Your task to perform on an android device: Go to notification settings Image 0: 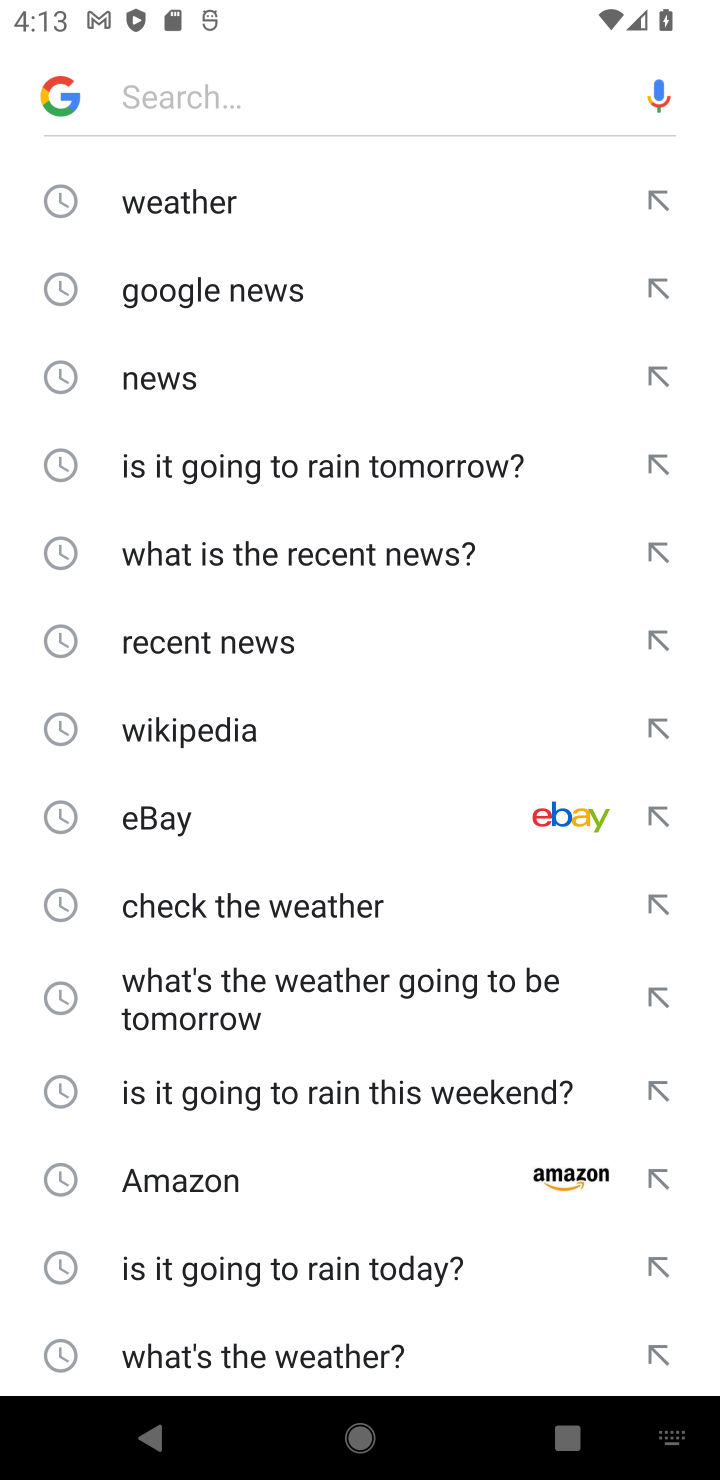
Step 0: press home button
Your task to perform on an android device: Go to notification settings Image 1: 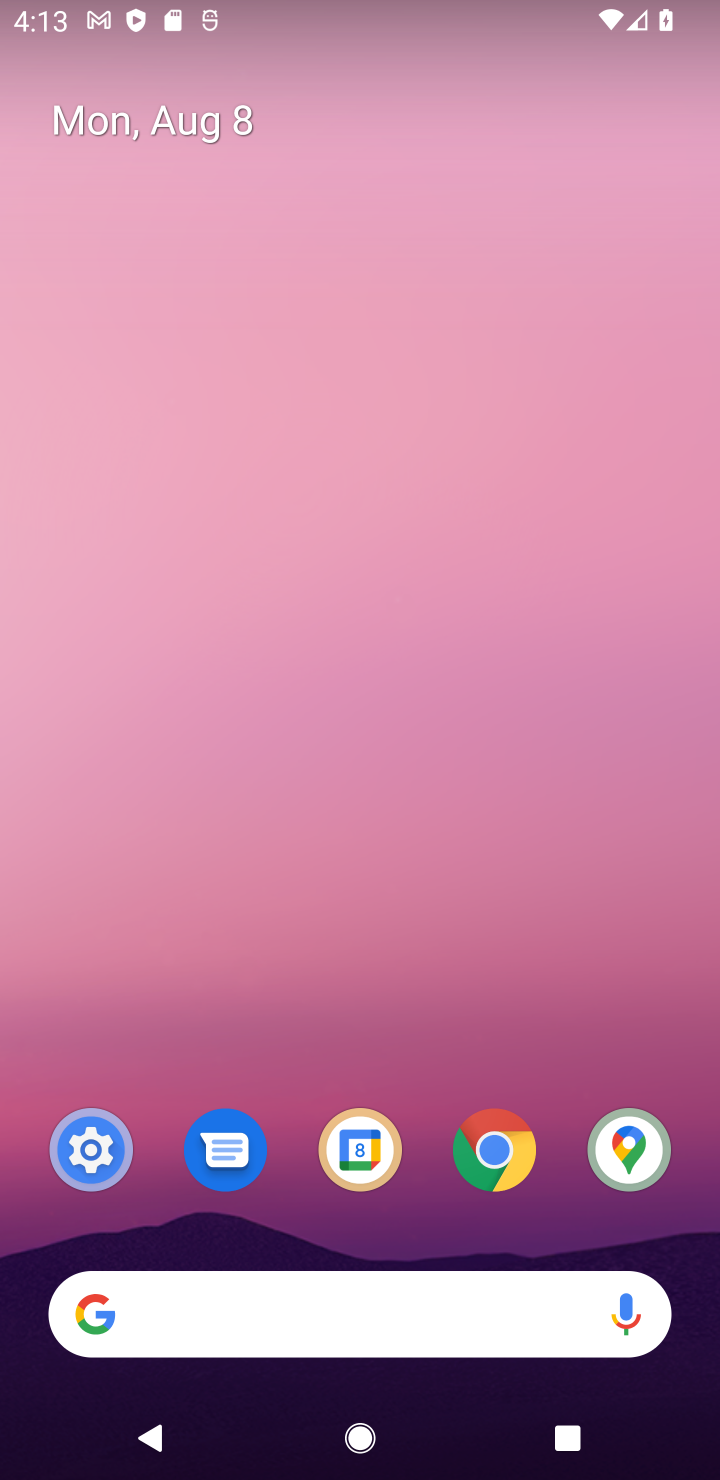
Step 1: click (65, 1135)
Your task to perform on an android device: Go to notification settings Image 2: 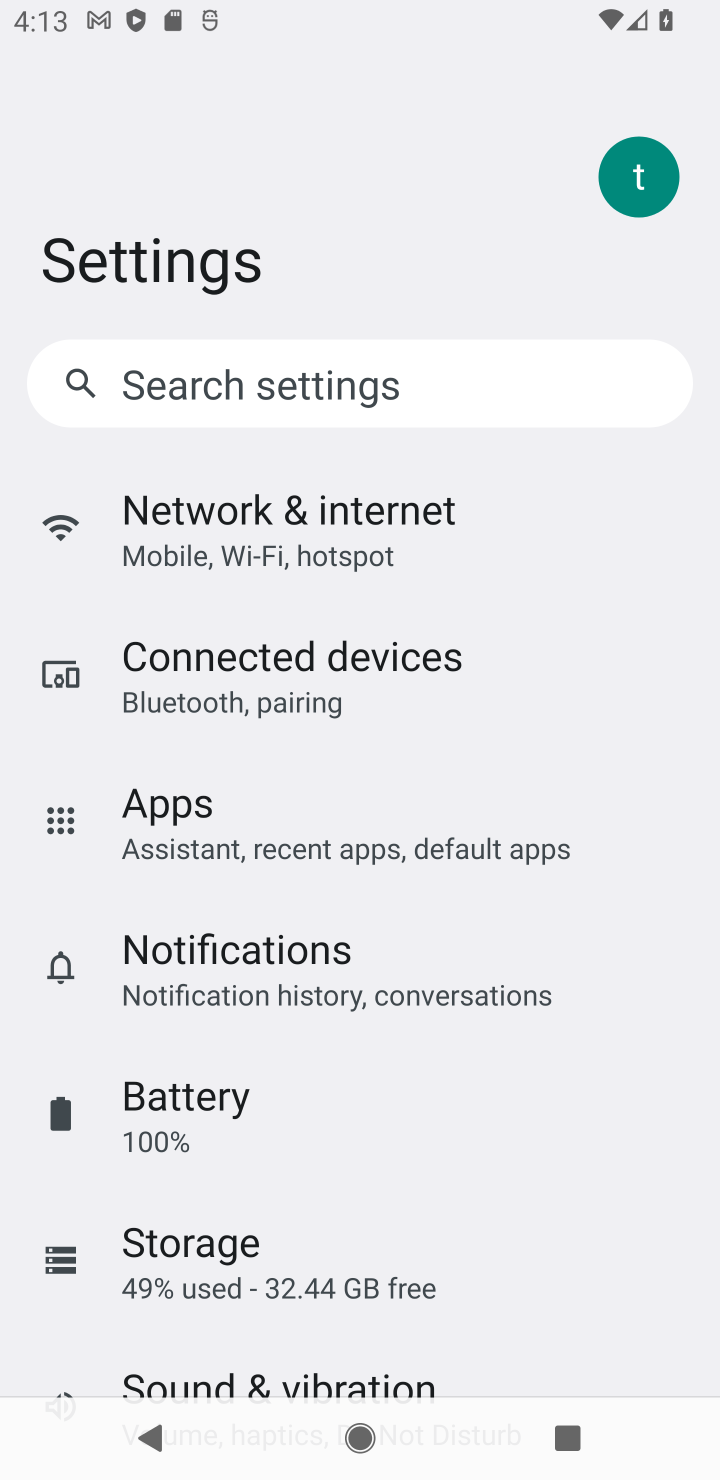
Step 2: click (300, 946)
Your task to perform on an android device: Go to notification settings Image 3: 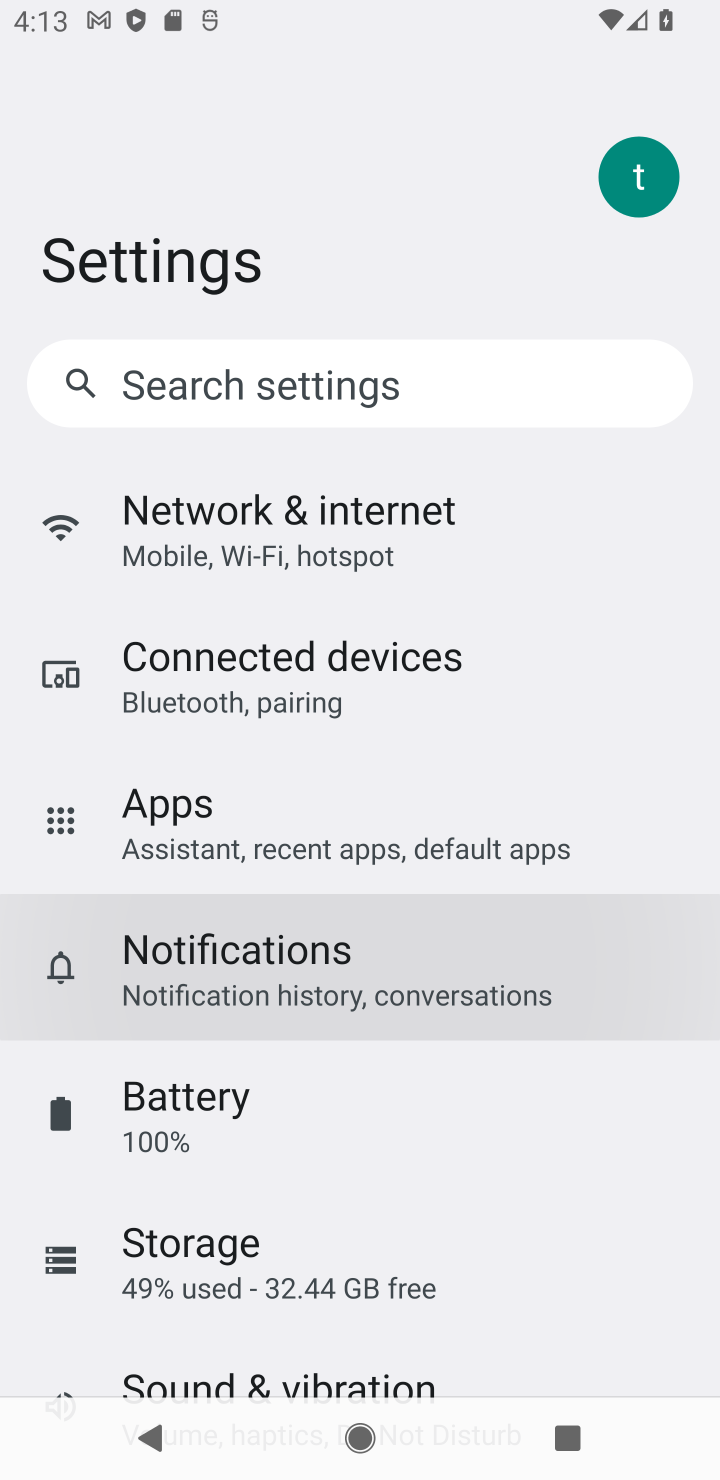
Step 3: task complete